Your task to perform on an android device: turn on the 12-hour format for clock Image 0: 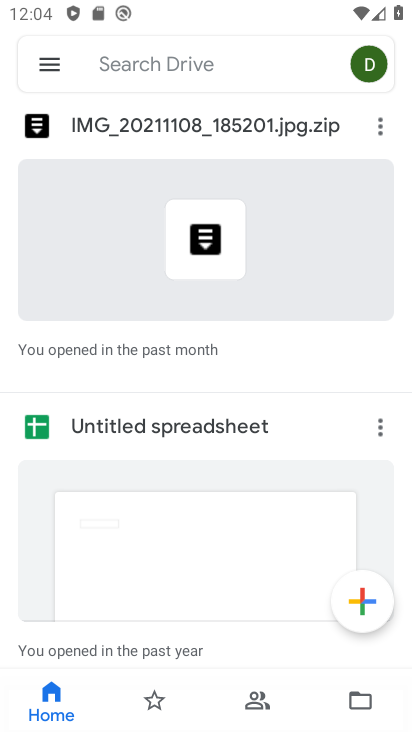
Step 0: press back button
Your task to perform on an android device: turn on the 12-hour format for clock Image 1: 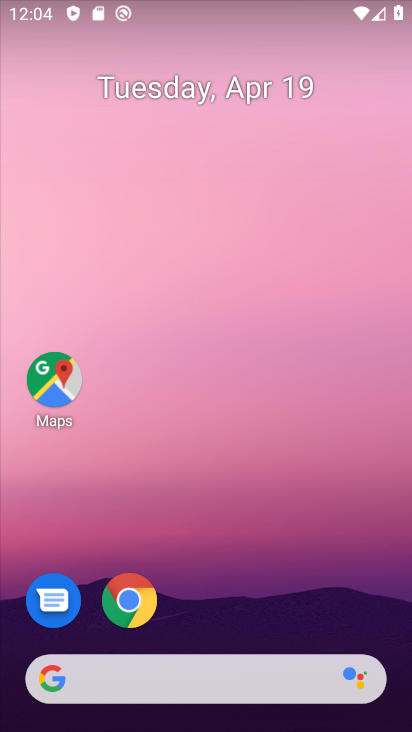
Step 1: drag from (209, 629) to (151, 111)
Your task to perform on an android device: turn on the 12-hour format for clock Image 2: 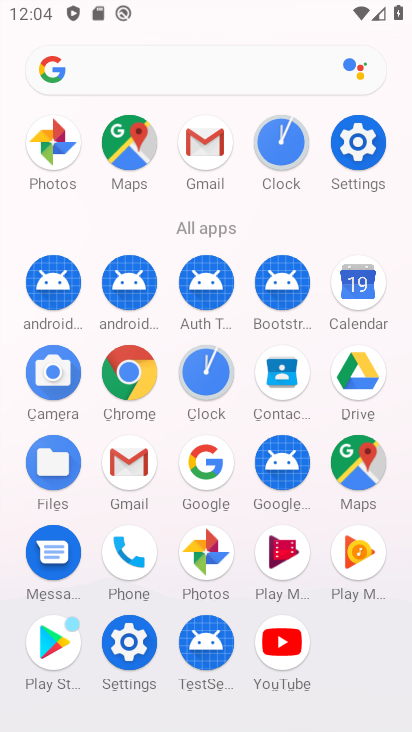
Step 2: click (354, 151)
Your task to perform on an android device: turn on the 12-hour format for clock Image 3: 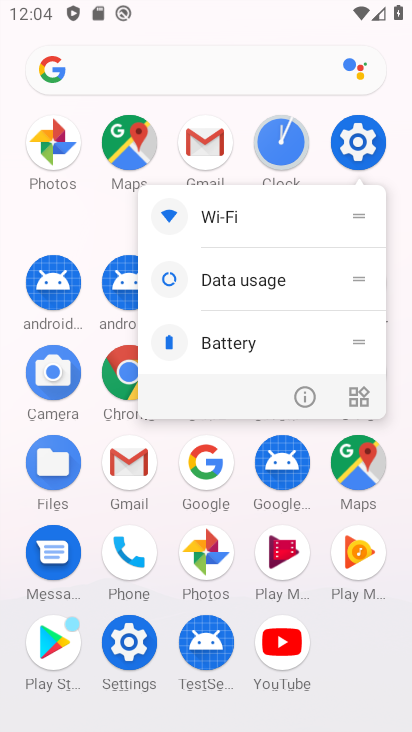
Step 3: click (346, 124)
Your task to perform on an android device: turn on the 12-hour format for clock Image 4: 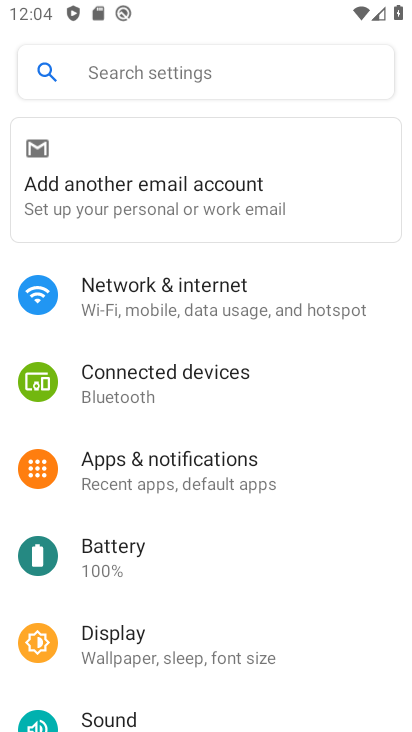
Step 4: drag from (231, 511) to (196, 9)
Your task to perform on an android device: turn on the 12-hour format for clock Image 5: 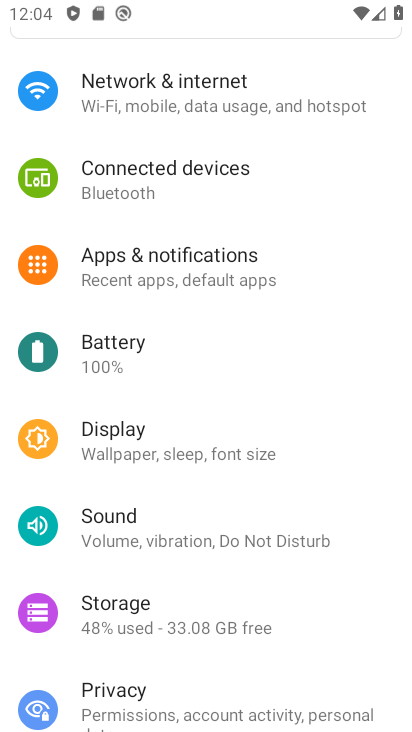
Step 5: drag from (294, 520) to (186, 38)
Your task to perform on an android device: turn on the 12-hour format for clock Image 6: 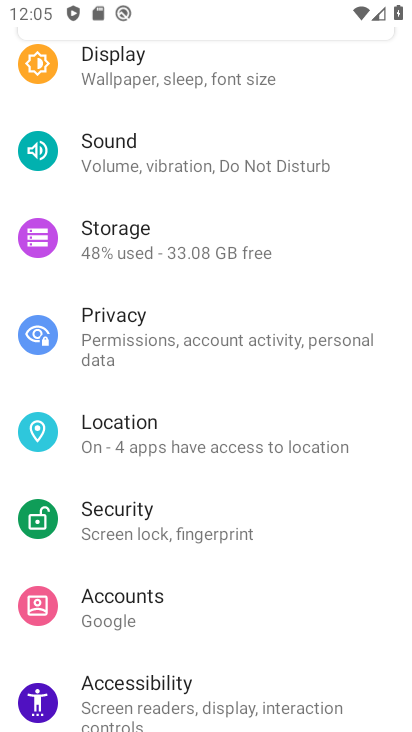
Step 6: drag from (212, 640) to (193, 162)
Your task to perform on an android device: turn on the 12-hour format for clock Image 7: 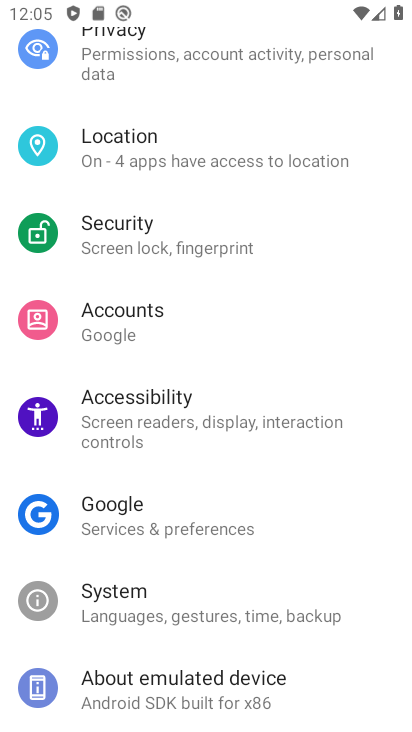
Step 7: click (126, 598)
Your task to perform on an android device: turn on the 12-hour format for clock Image 8: 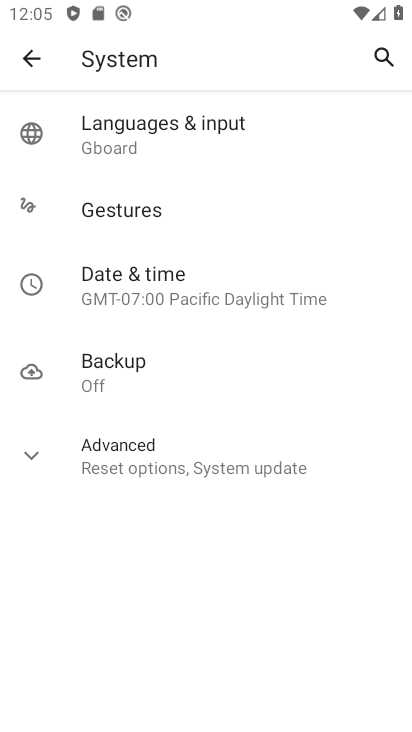
Step 8: click (163, 274)
Your task to perform on an android device: turn on the 12-hour format for clock Image 9: 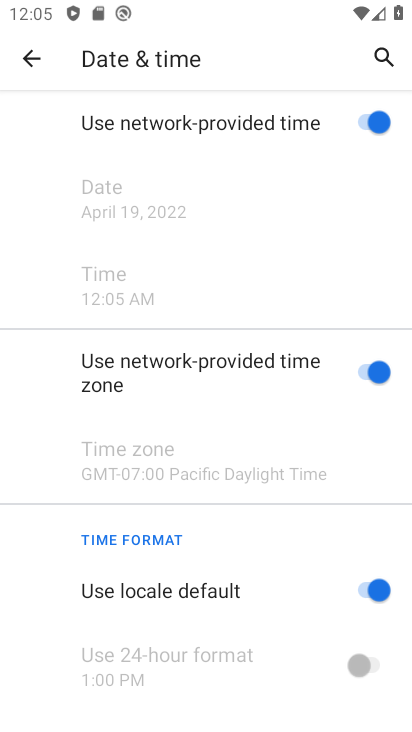
Step 9: task complete